Your task to perform on an android device: check storage Image 0: 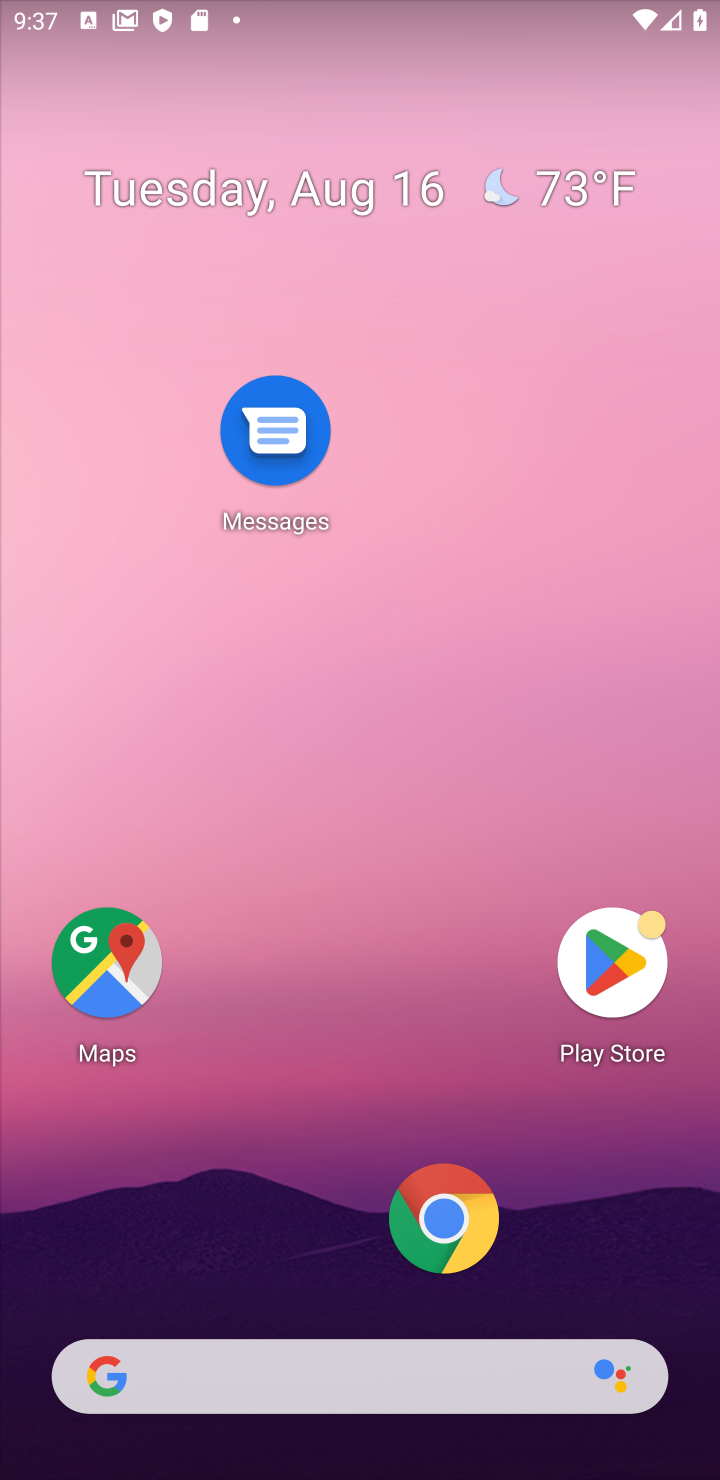
Step 0: drag from (307, 1077) to (305, 585)
Your task to perform on an android device: check storage Image 1: 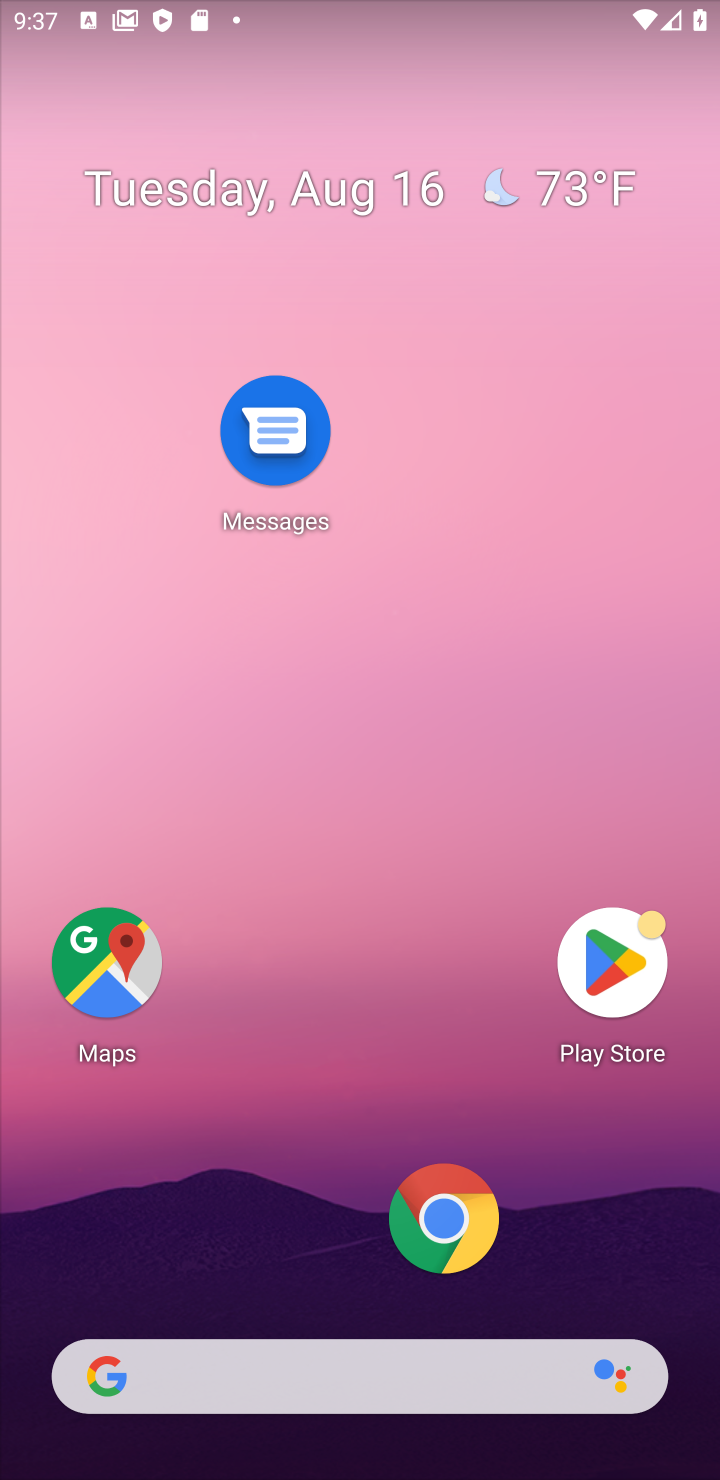
Step 1: drag from (355, 1266) to (362, 9)
Your task to perform on an android device: check storage Image 2: 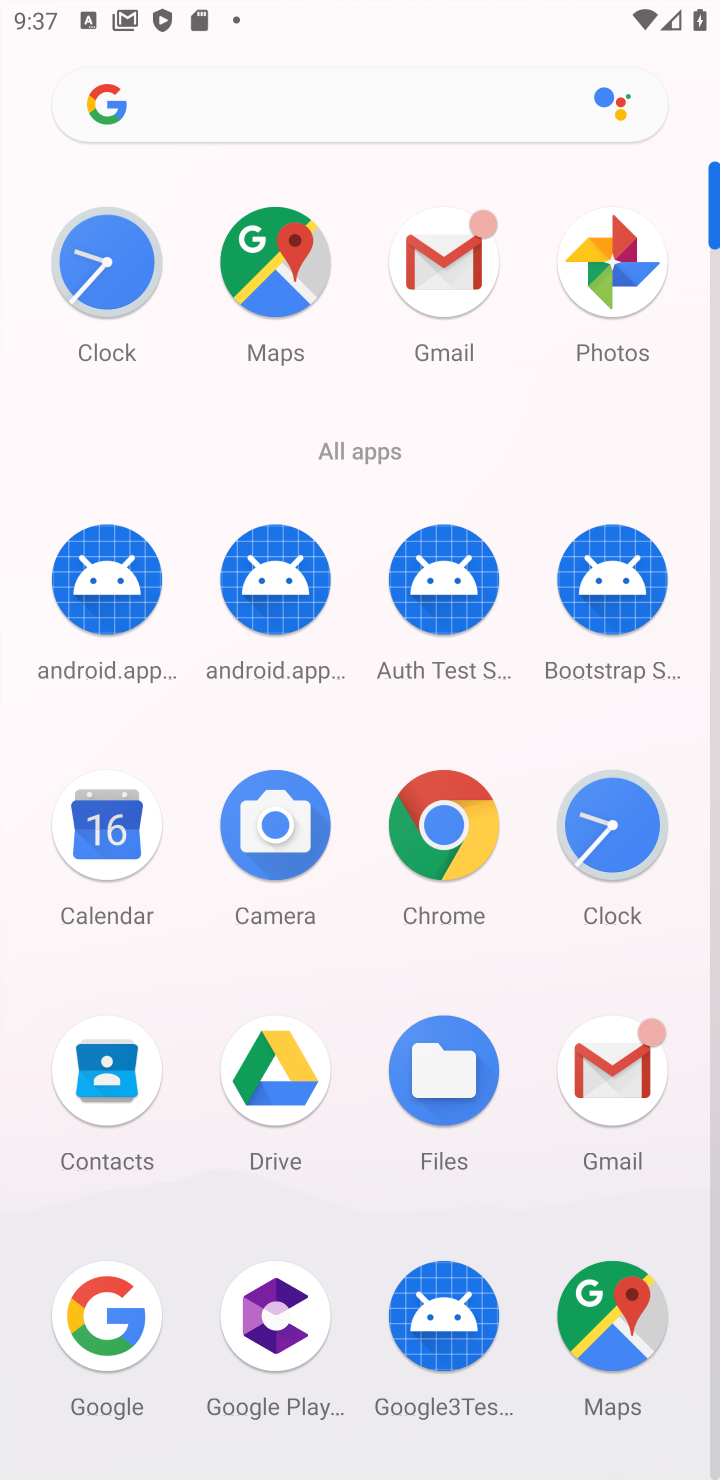
Step 2: drag from (361, 1384) to (431, 410)
Your task to perform on an android device: check storage Image 3: 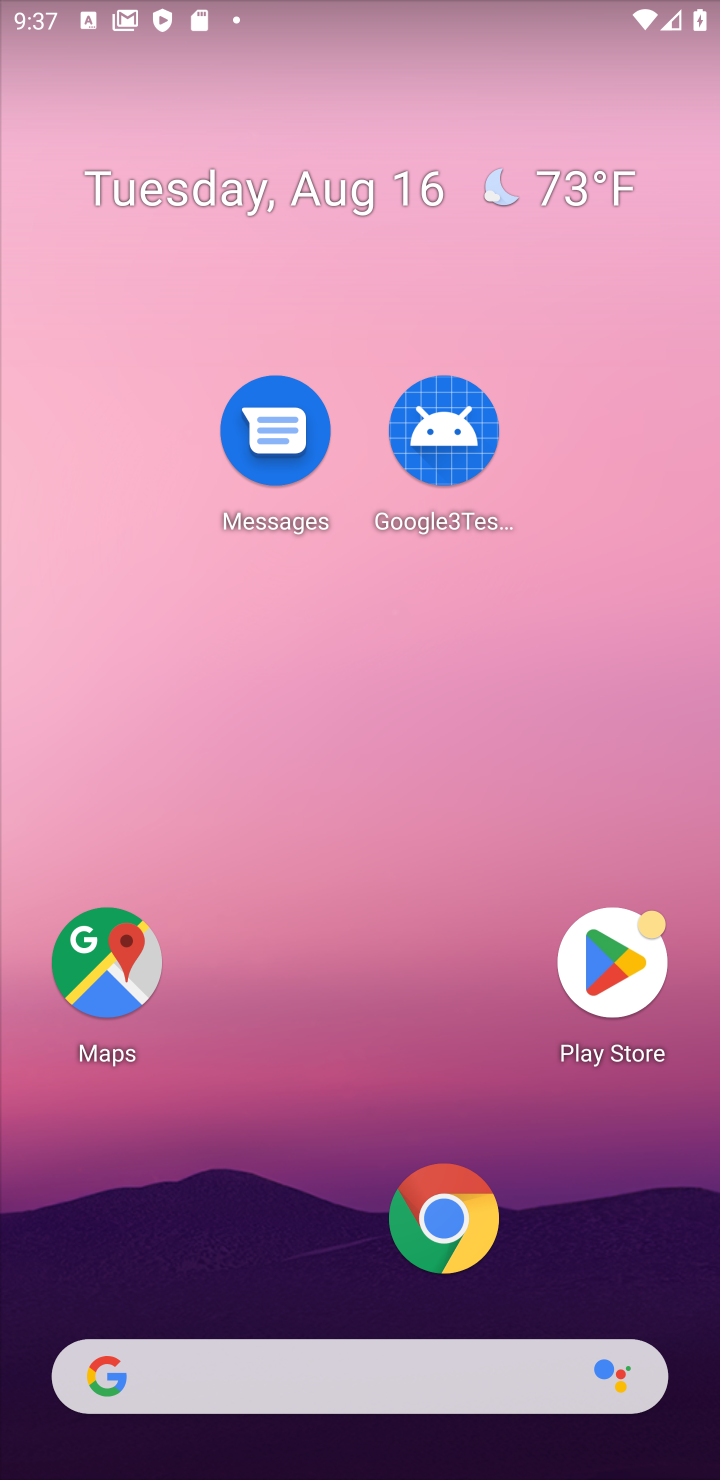
Step 3: drag from (312, 1222) to (228, 51)
Your task to perform on an android device: check storage Image 4: 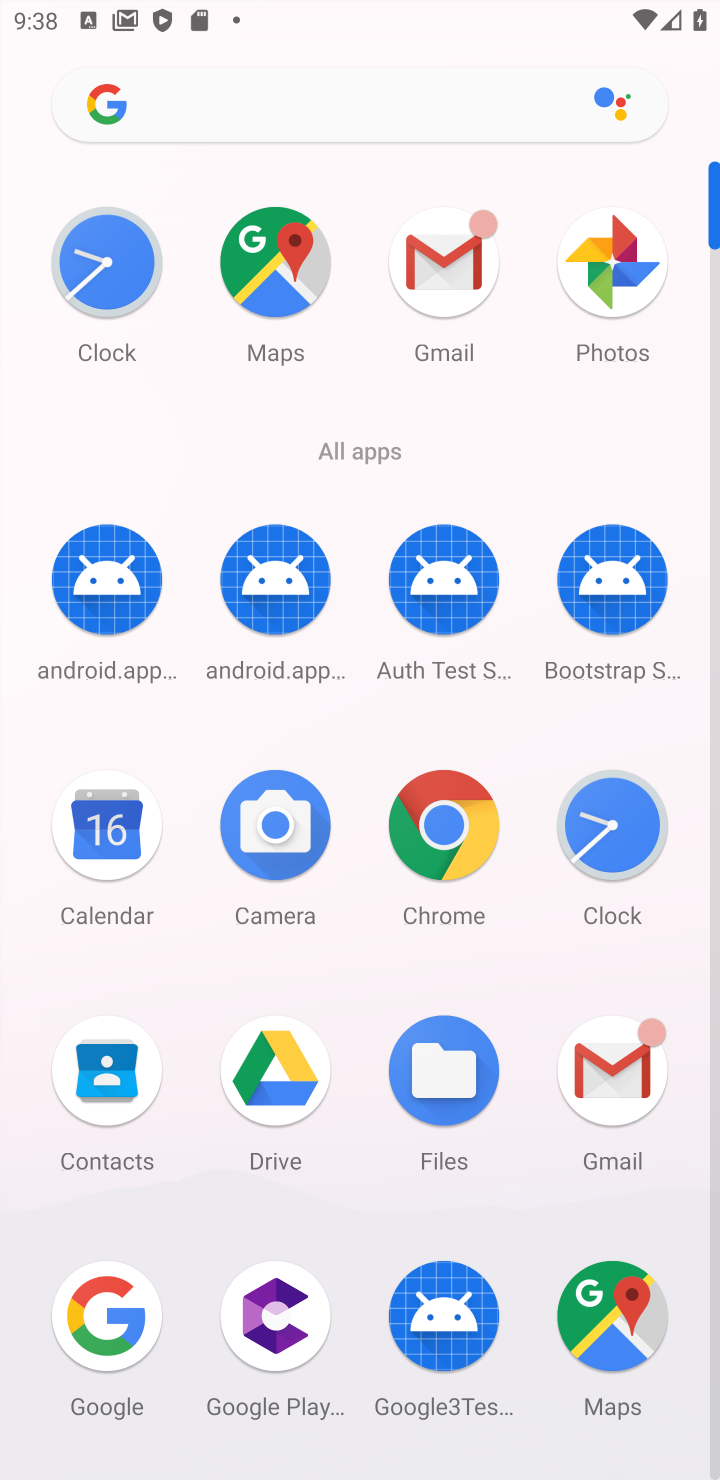
Step 4: drag from (171, 1430) to (250, 485)
Your task to perform on an android device: check storage Image 5: 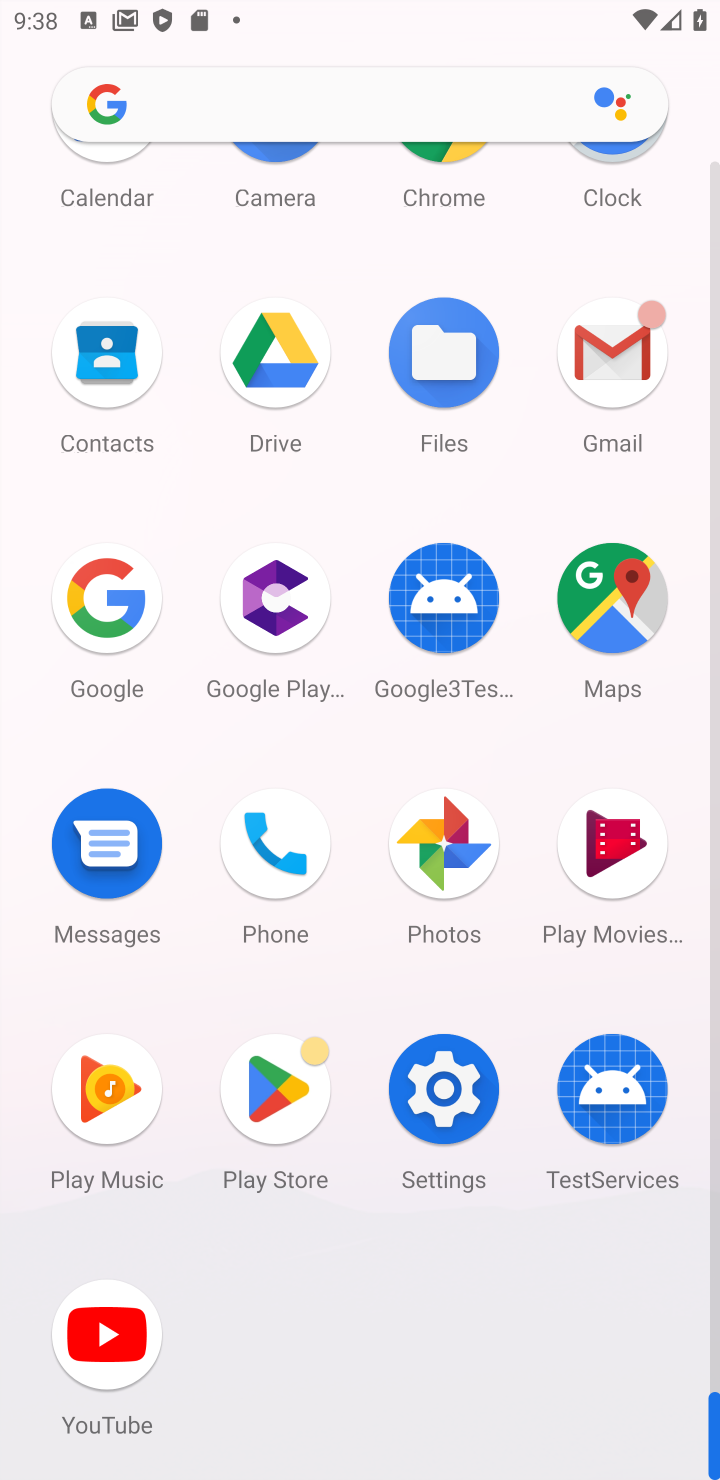
Step 5: click (474, 1110)
Your task to perform on an android device: check storage Image 6: 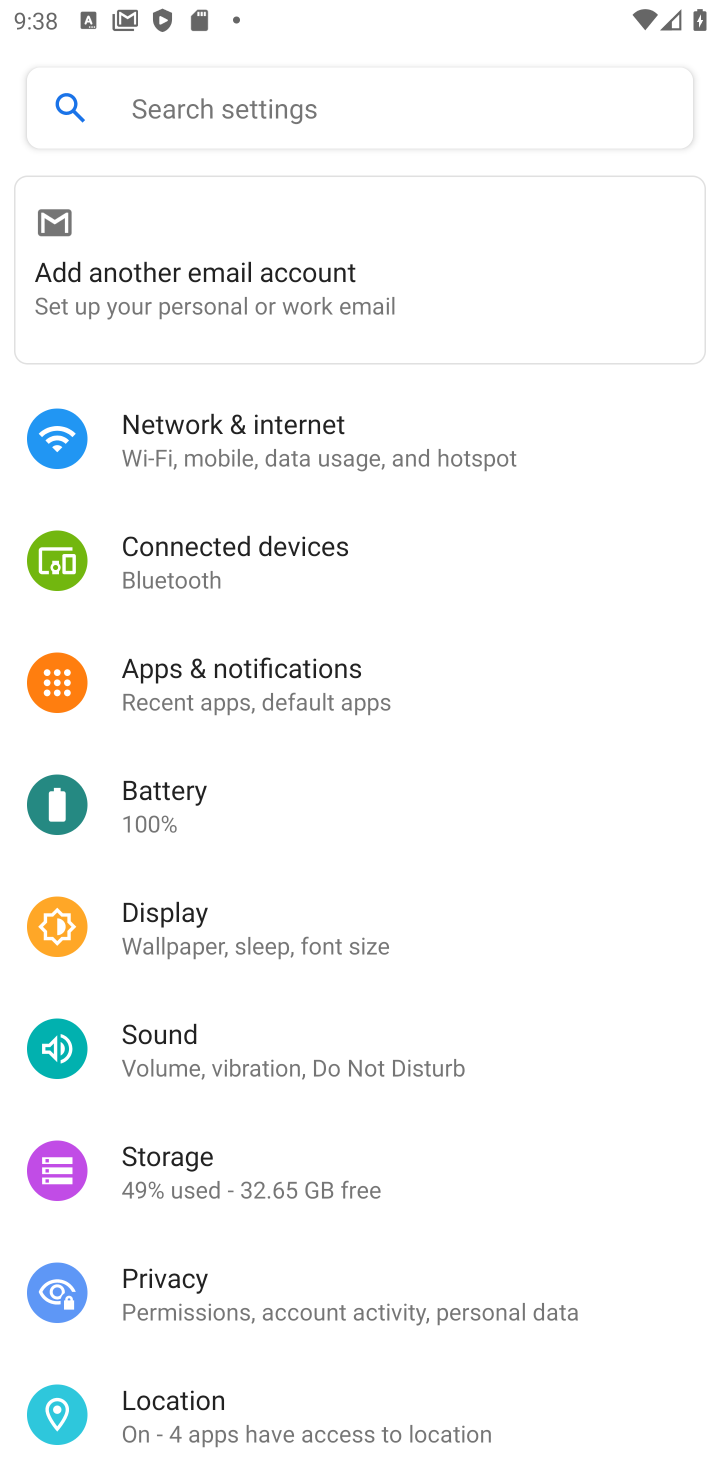
Step 6: click (253, 1199)
Your task to perform on an android device: check storage Image 7: 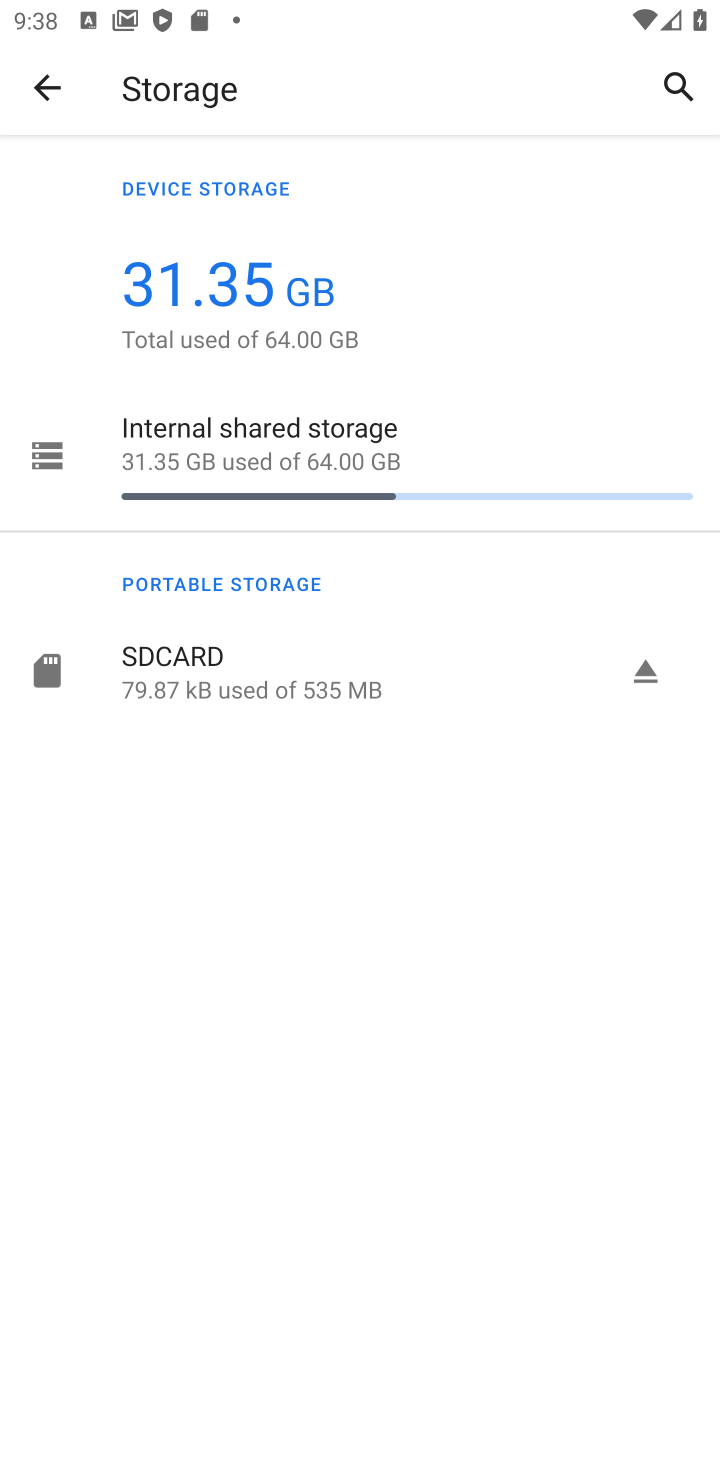
Step 7: task complete